Your task to perform on an android device: Search for Mexican restaurants on Maps Image 0: 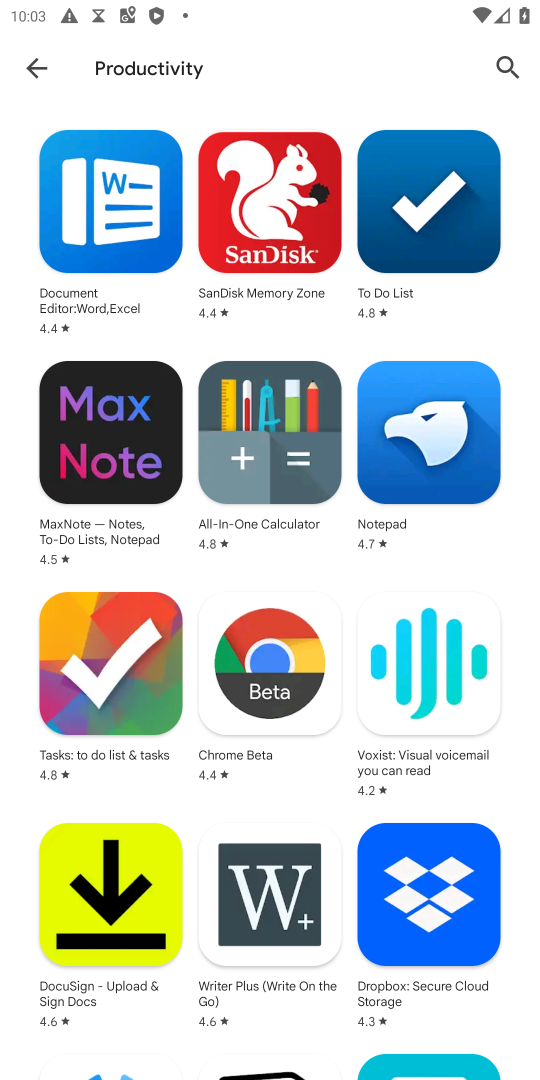
Step 0: press home button
Your task to perform on an android device: Search for Mexican restaurants on Maps Image 1: 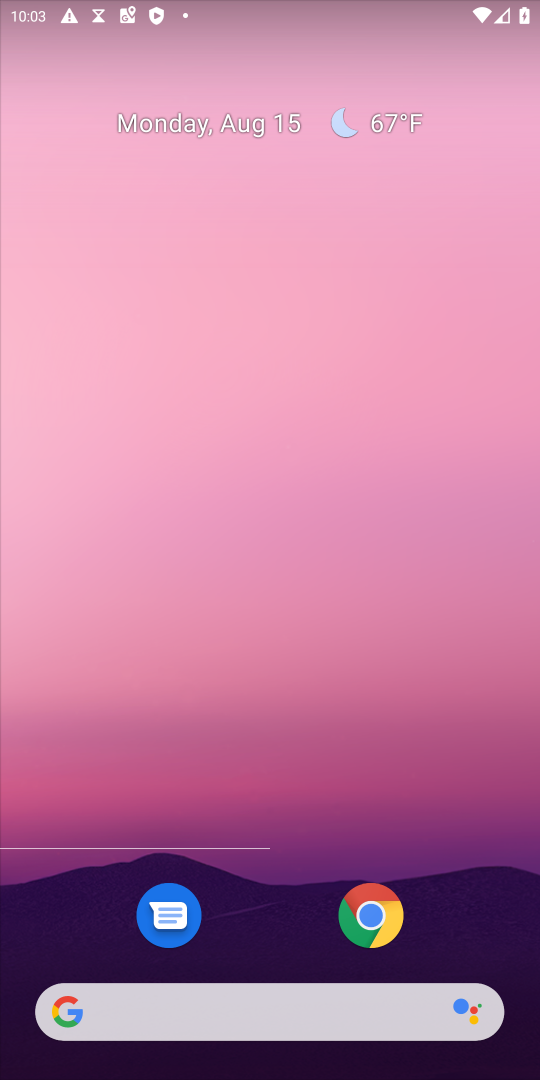
Step 1: drag from (290, 803) to (334, 147)
Your task to perform on an android device: Search for Mexican restaurants on Maps Image 2: 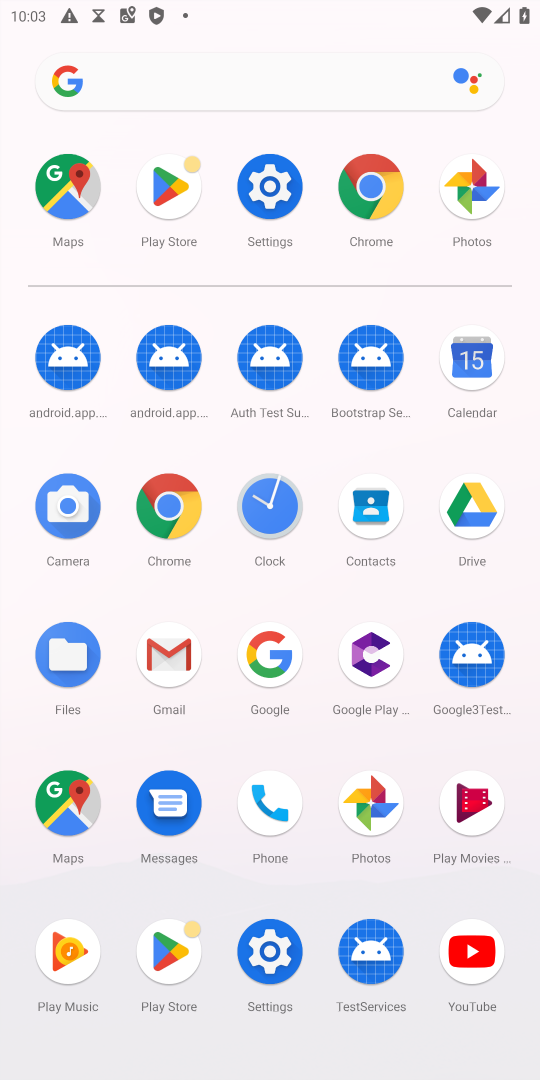
Step 2: click (60, 803)
Your task to perform on an android device: Search for Mexican restaurants on Maps Image 3: 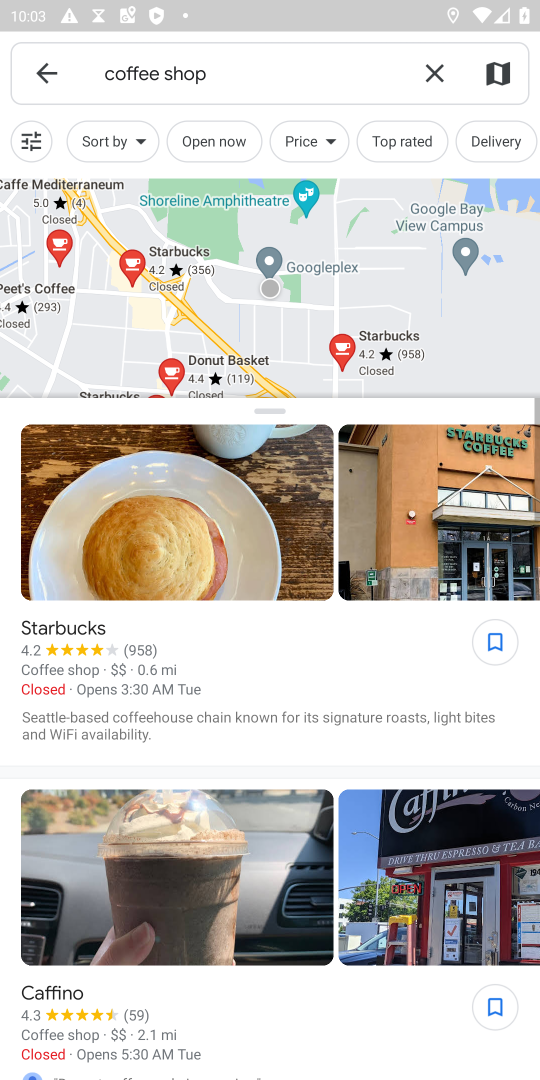
Step 3: click (259, 69)
Your task to perform on an android device: Search for Mexican restaurants on Maps Image 4: 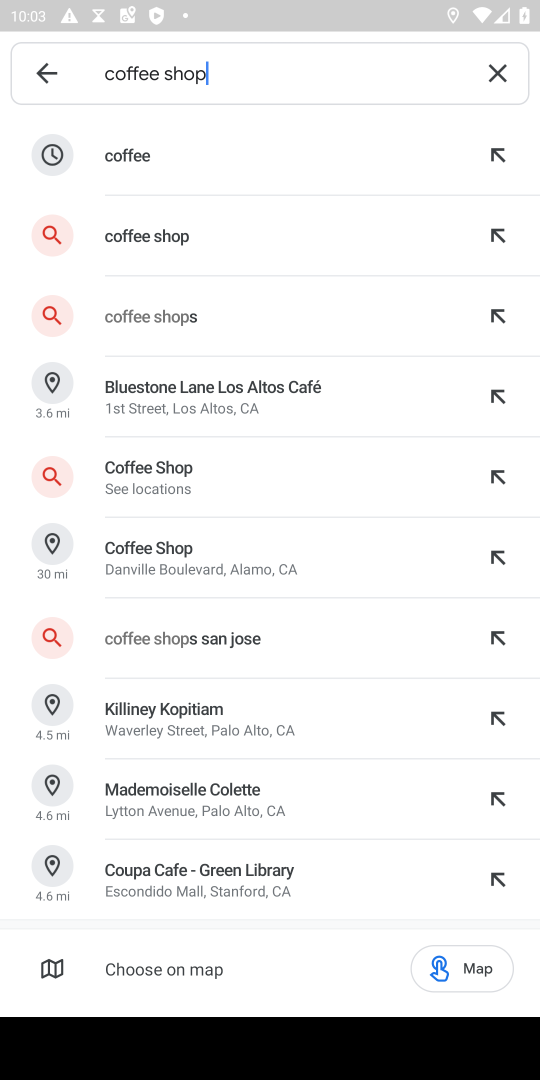
Step 4: click (490, 65)
Your task to perform on an android device: Search for Mexican restaurants on Maps Image 5: 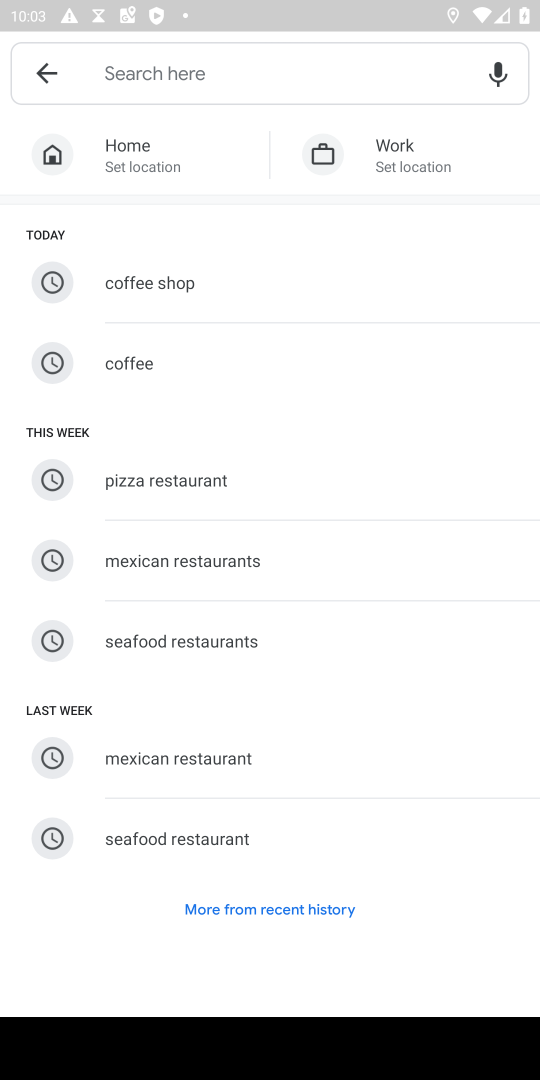
Step 5: click (172, 567)
Your task to perform on an android device: Search for Mexican restaurants on Maps Image 6: 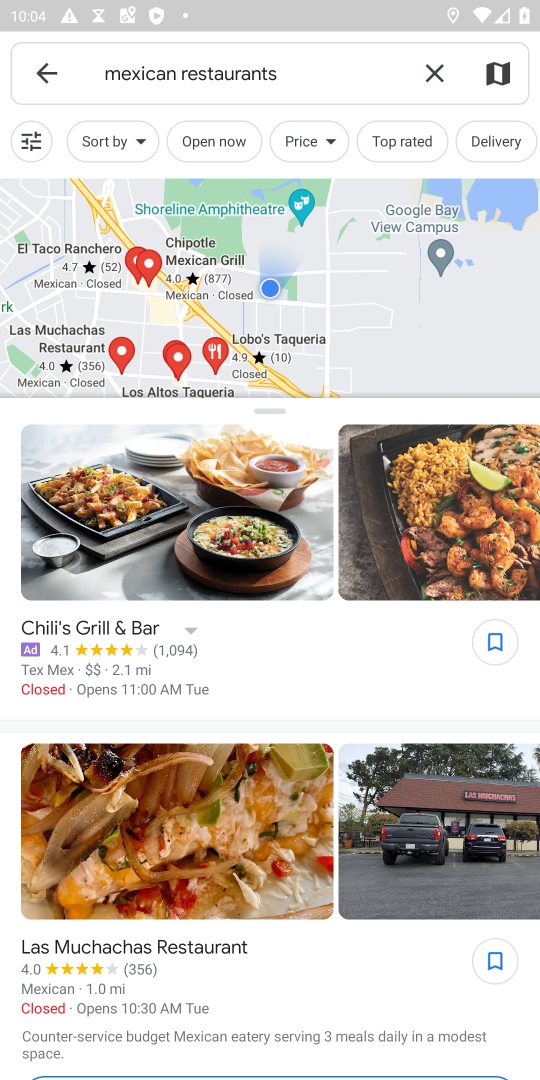
Step 6: task complete